Your task to perform on an android device: Open the calendar and show me this week's events Image 0: 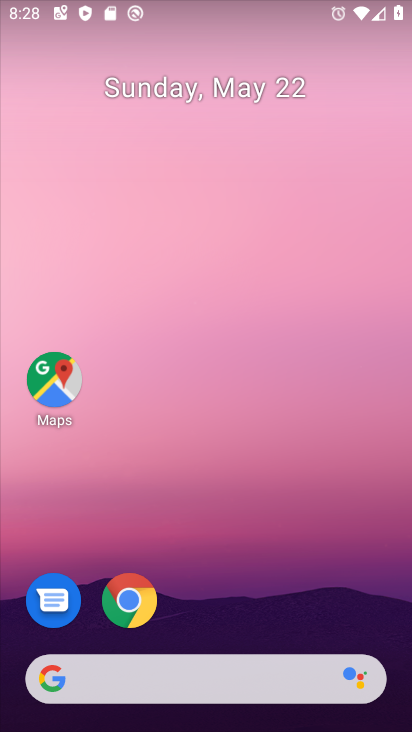
Step 0: click (290, 254)
Your task to perform on an android device: Open the calendar and show me this week's events Image 1: 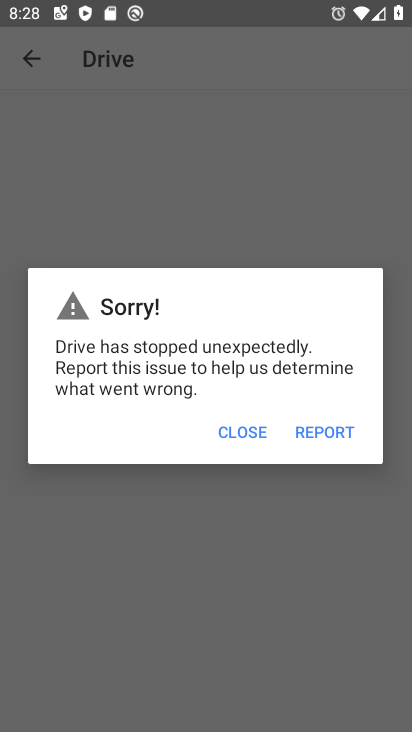
Step 1: press home button
Your task to perform on an android device: Open the calendar and show me this week's events Image 2: 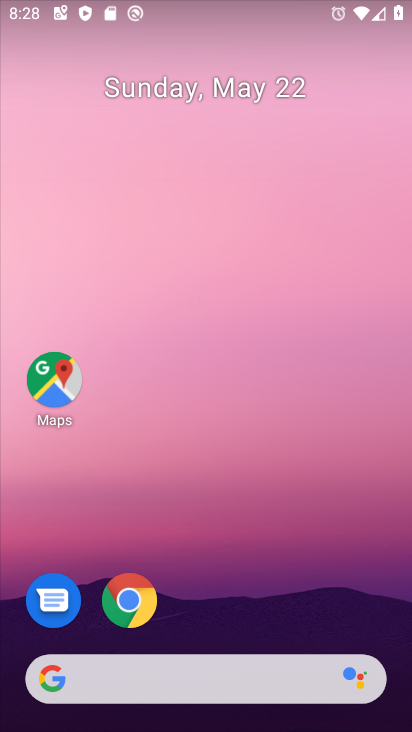
Step 2: drag from (235, 623) to (232, 247)
Your task to perform on an android device: Open the calendar and show me this week's events Image 3: 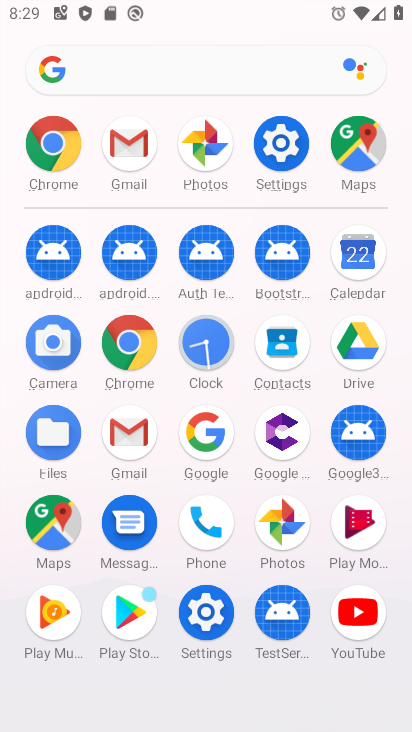
Step 3: click (378, 257)
Your task to perform on an android device: Open the calendar and show me this week's events Image 4: 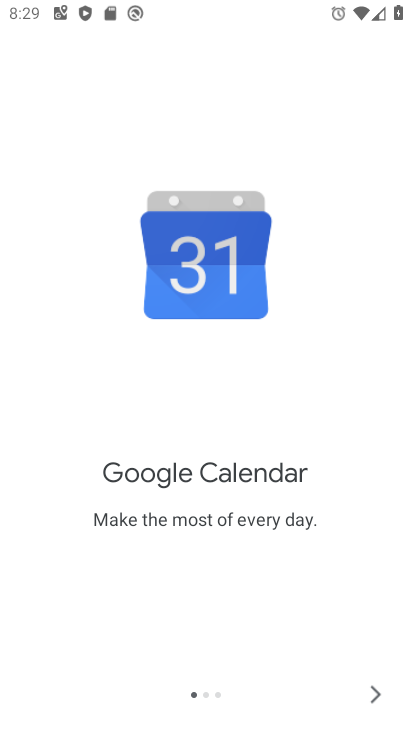
Step 4: click (380, 701)
Your task to perform on an android device: Open the calendar and show me this week's events Image 5: 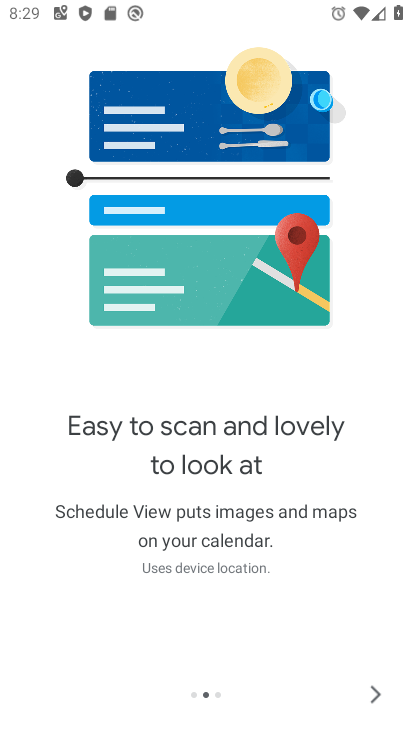
Step 5: click (380, 701)
Your task to perform on an android device: Open the calendar and show me this week's events Image 6: 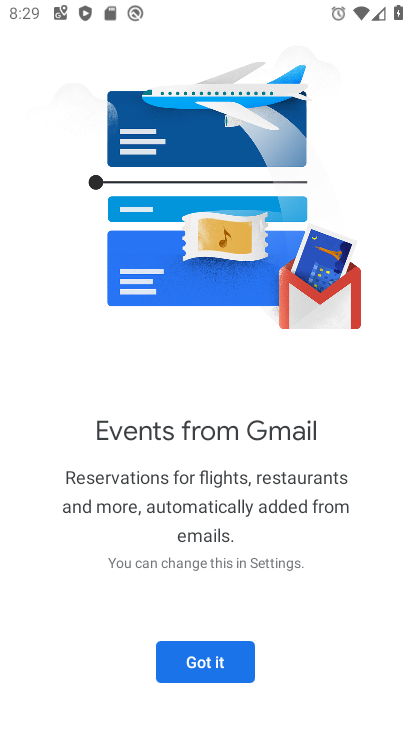
Step 6: click (195, 665)
Your task to perform on an android device: Open the calendar and show me this week's events Image 7: 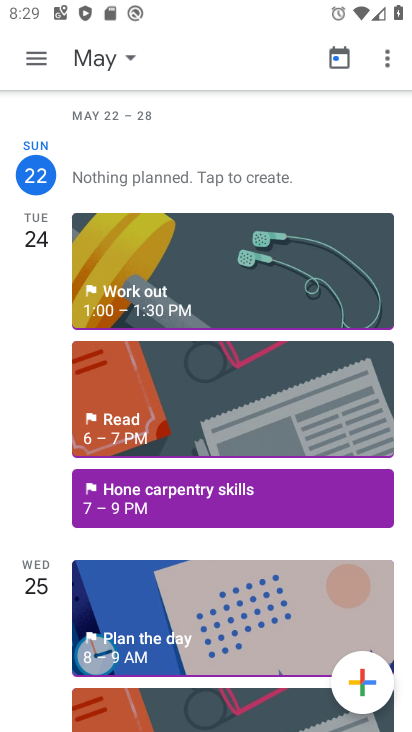
Step 7: click (119, 54)
Your task to perform on an android device: Open the calendar and show me this week's events Image 8: 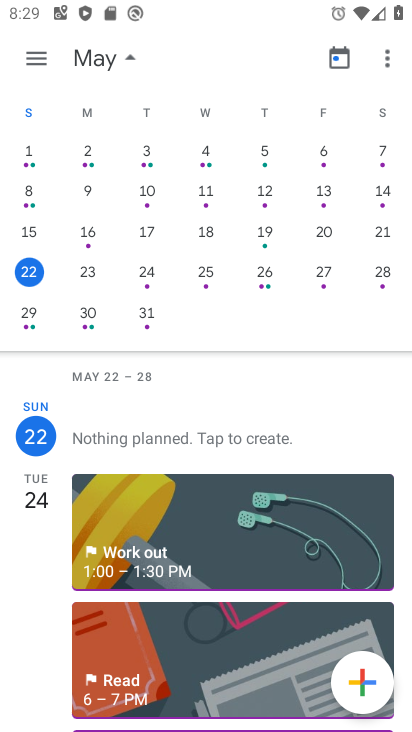
Step 8: task complete